Your task to perform on an android device: change the clock style Image 0: 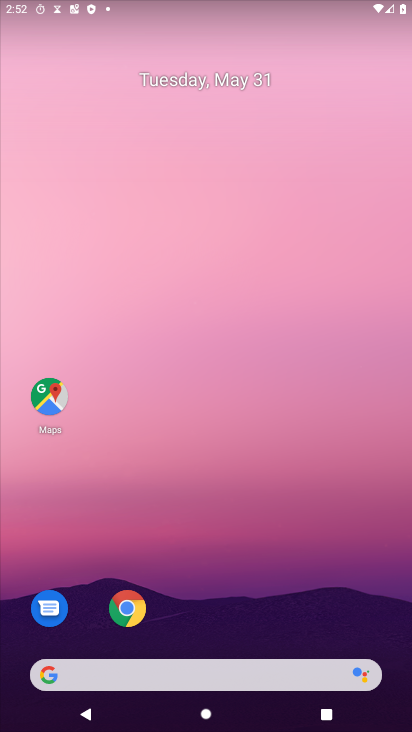
Step 0: drag from (201, 630) to (322, 207)
Your task to perform on an android device: change the clock style Image 1: 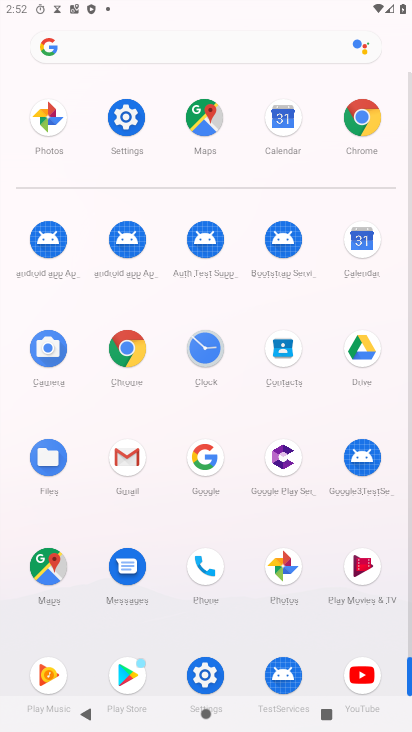
Step 1: click (202, 359)
Your task to perform on an android device: change the clock style Image 2: 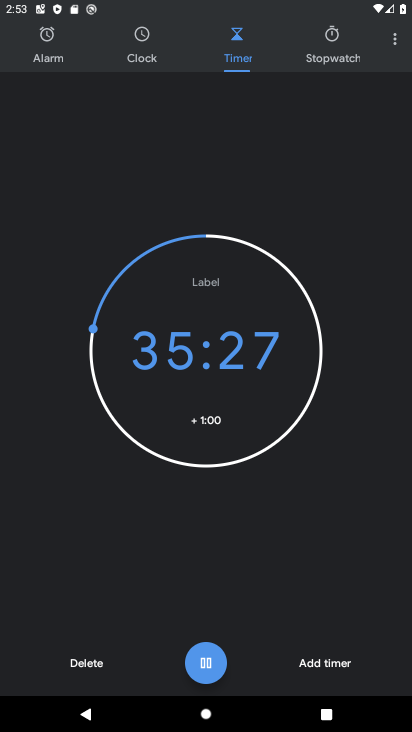
Step 2: click (393, 34)
Your task to perform on an android device: change the clock style Image 3: 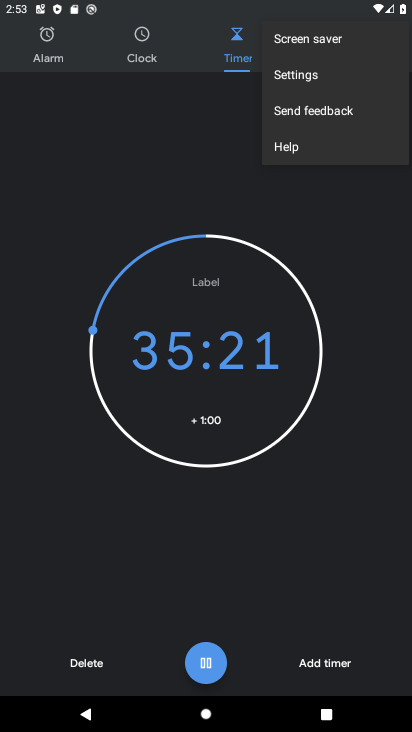
Step 3: click (303, 83)
Your task to perform on an android device: change the clock style Image 4: 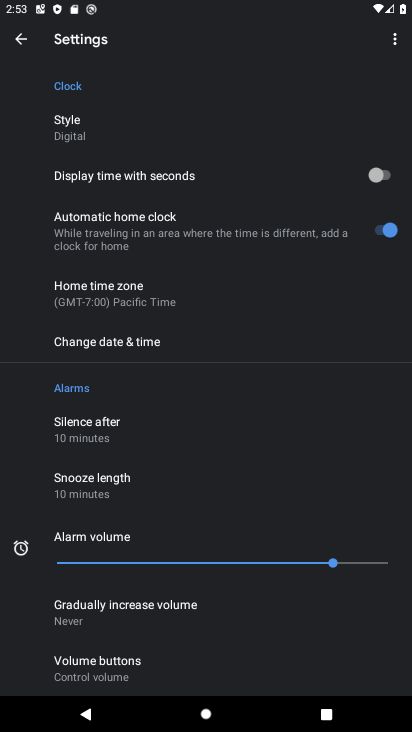
Step 4: click (303, 83)
Your task to perform on an android device: change the clock style Image 5: 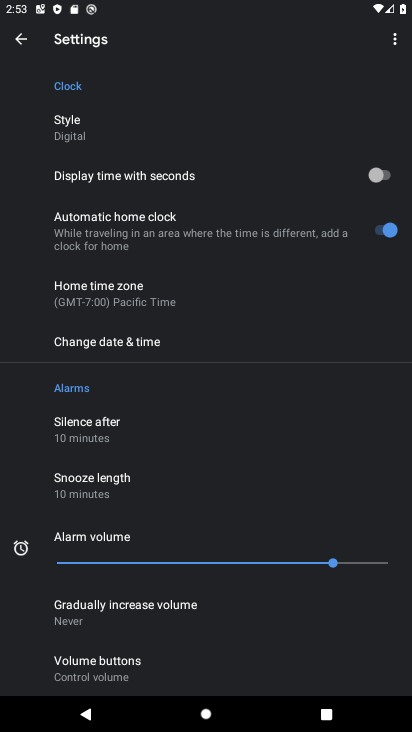
Step 5: click (94, 130)
Your task to perform on an android device: change the clock style Image 6: 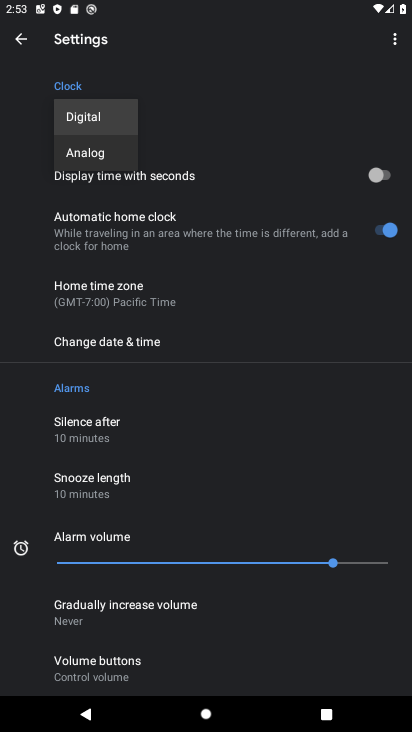
Step 6: click (108, 153)
Your task to perform on an android device: change the clock style Image 7: 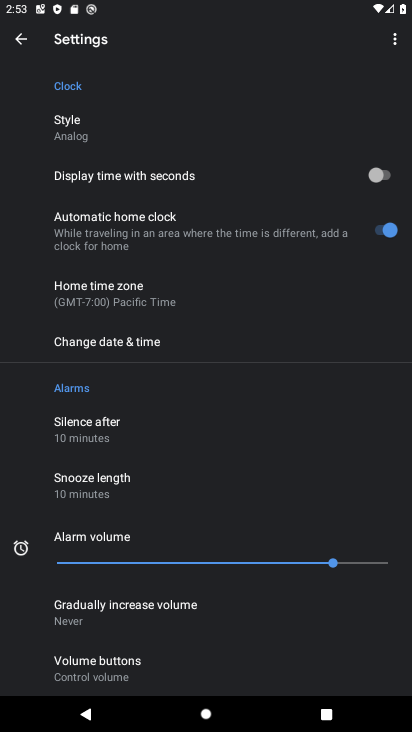
Step 7: task complete